Your task to perform on an android device: search for starred emails in the gmail app Image 0: 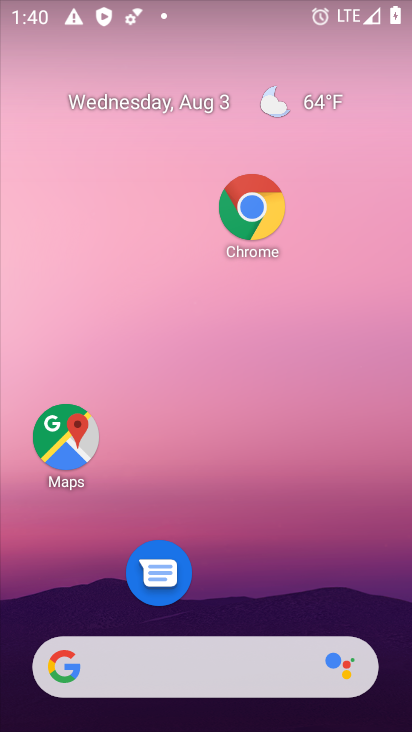
Step 0: drag from (182, 437) to (205, 142)
Your task to perform on an android device: search for starred emails in the gmail app Image 1: 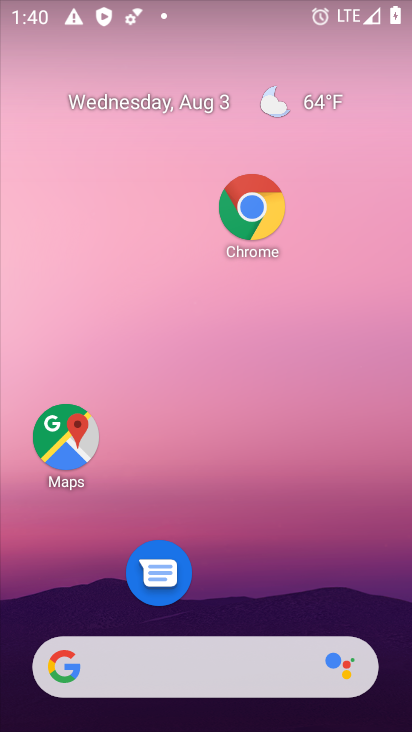
Step 1: drag from (195, 625) to (213, 181)
Your task to perform on an android device: search for starred emails in the gmail app Image 2: 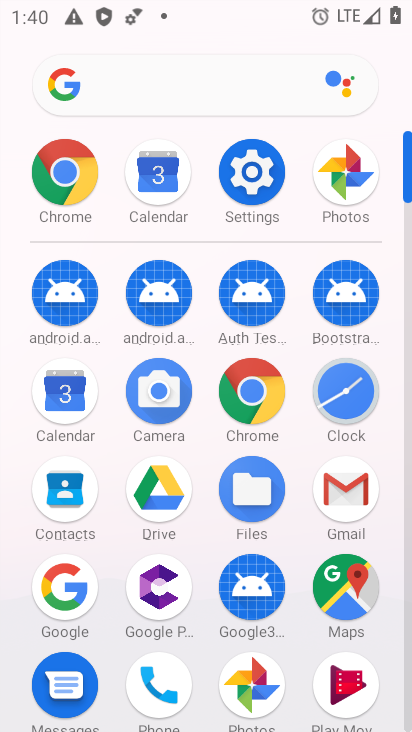
Step 2: click (350, 496)
Your task to perform on an android device: search for starred emails in the gmail app Image 3: 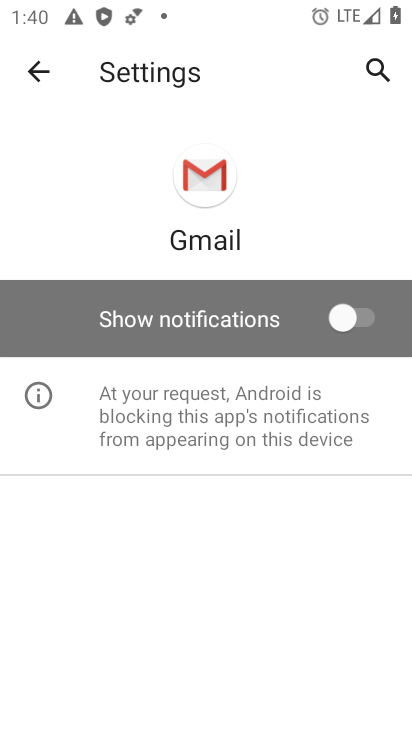
Step 3: click (46, 82)
Your task to perform on an android device: search for starred emails in the gmail app Image 4: 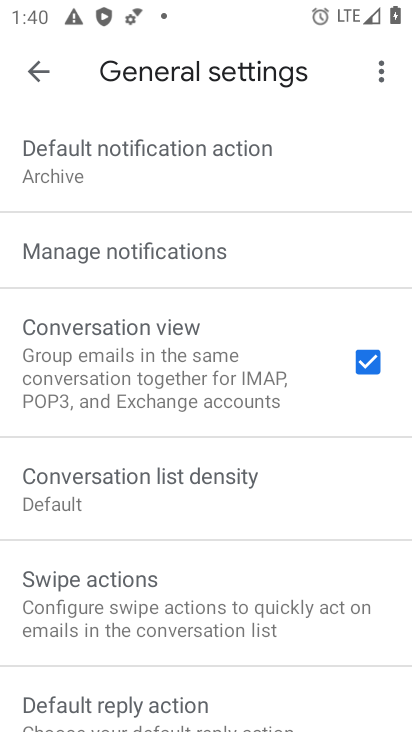
Step 4: click (32, 74)
Your task to perform on an android device: search for starred emails in the gmail app Image 5: 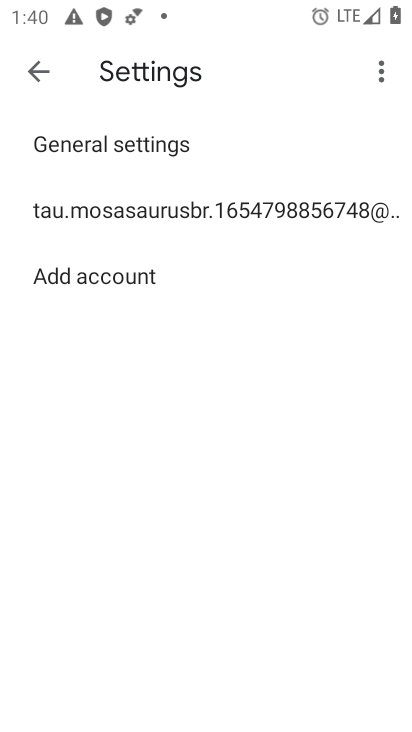
Step 5: click (40, 85)
Your task to perform on an android device: search for starred emails in the gmail app Image 6: 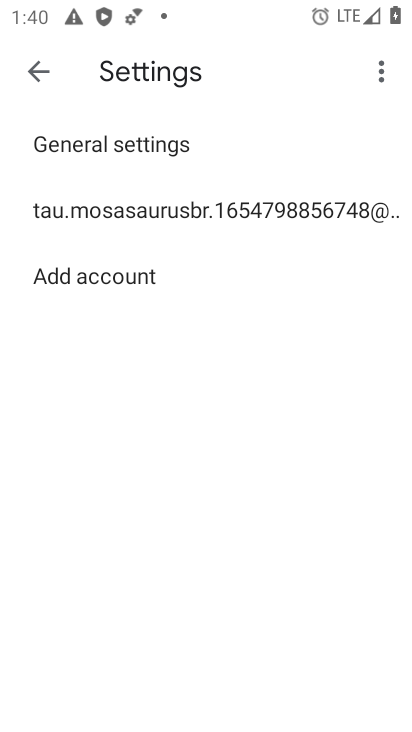
Step 6: click (39, 72)
Your task to perform on an android device: search for starred emails in the gmail app Image 7: 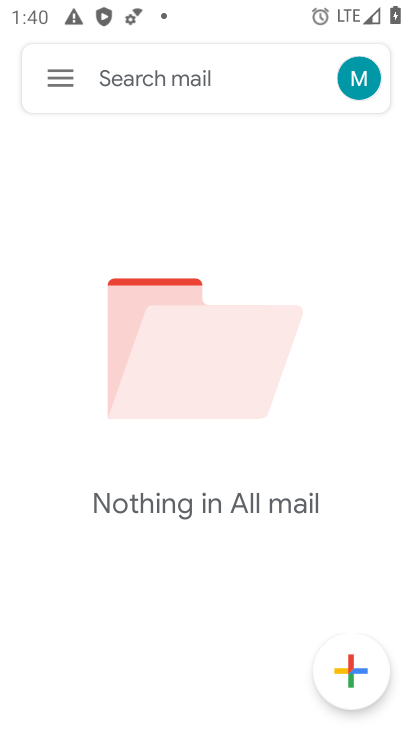
Step 7: click (65, 87)
Your task to perform on an android device: search for starred emails in the gmail app Image 8: 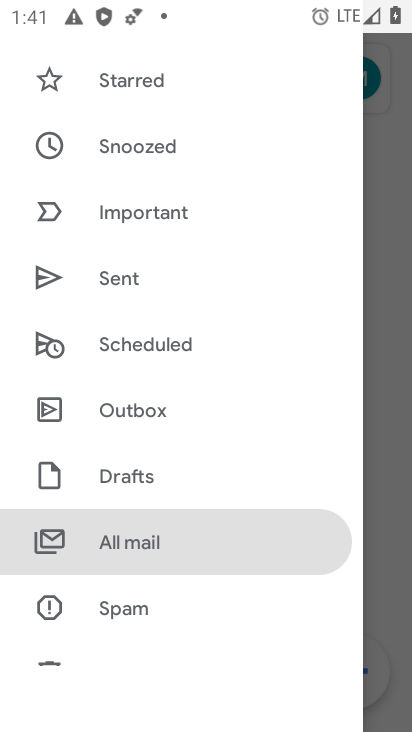
Step 8: click (142, 86)
Your task to perform on an android device: search for starred emails in the gmail app Image 9: 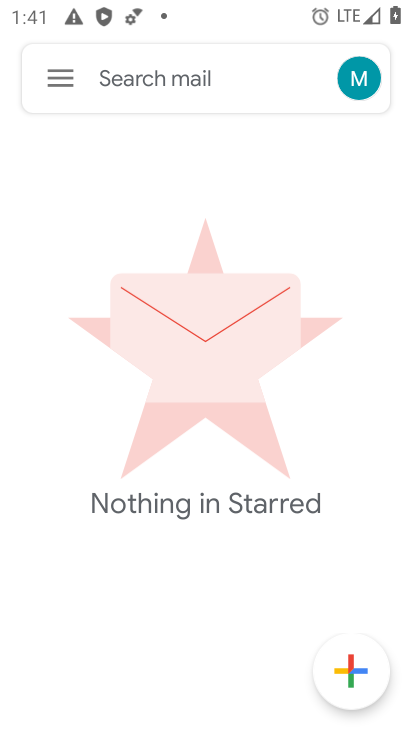
Step 9: task complete